Your task to perform on an android device: toggle notifications settings in the gmail app Image 0: 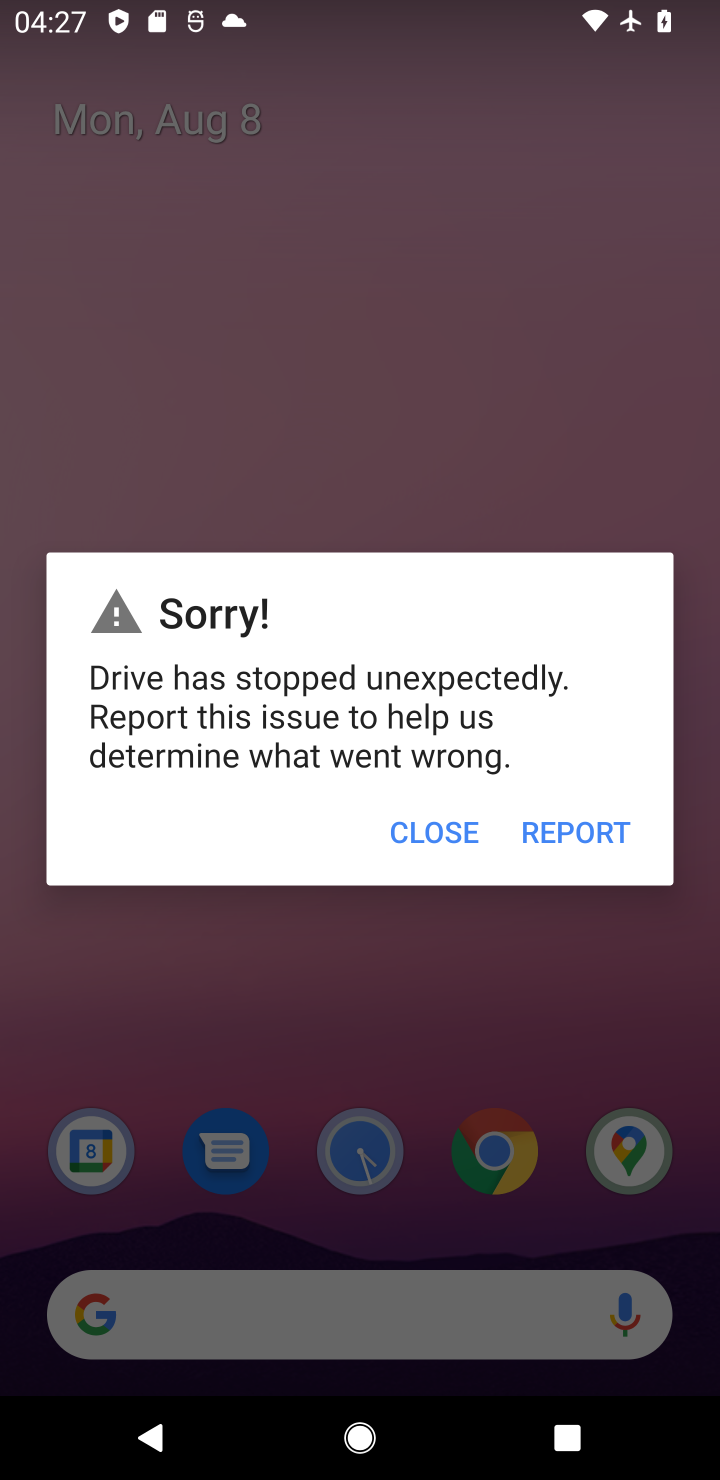
Step 0: click (451, 835)
Your task to perform on an android device: toggle notifications settings in the gmail app Image 1: 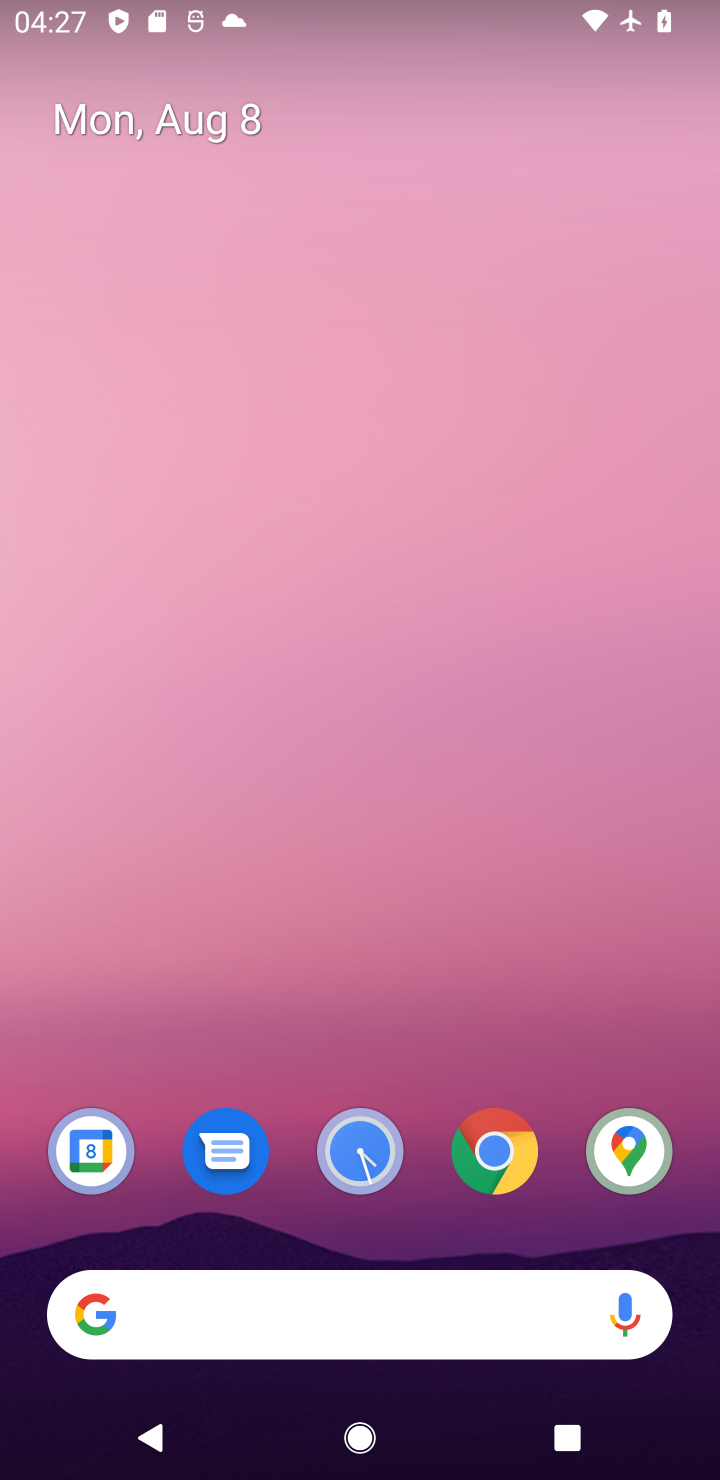
Step 1: drag from (333, 1019) to (250, 241)
Your task to perform on an android device: toggle notifications settings in the gmail app Image 2: 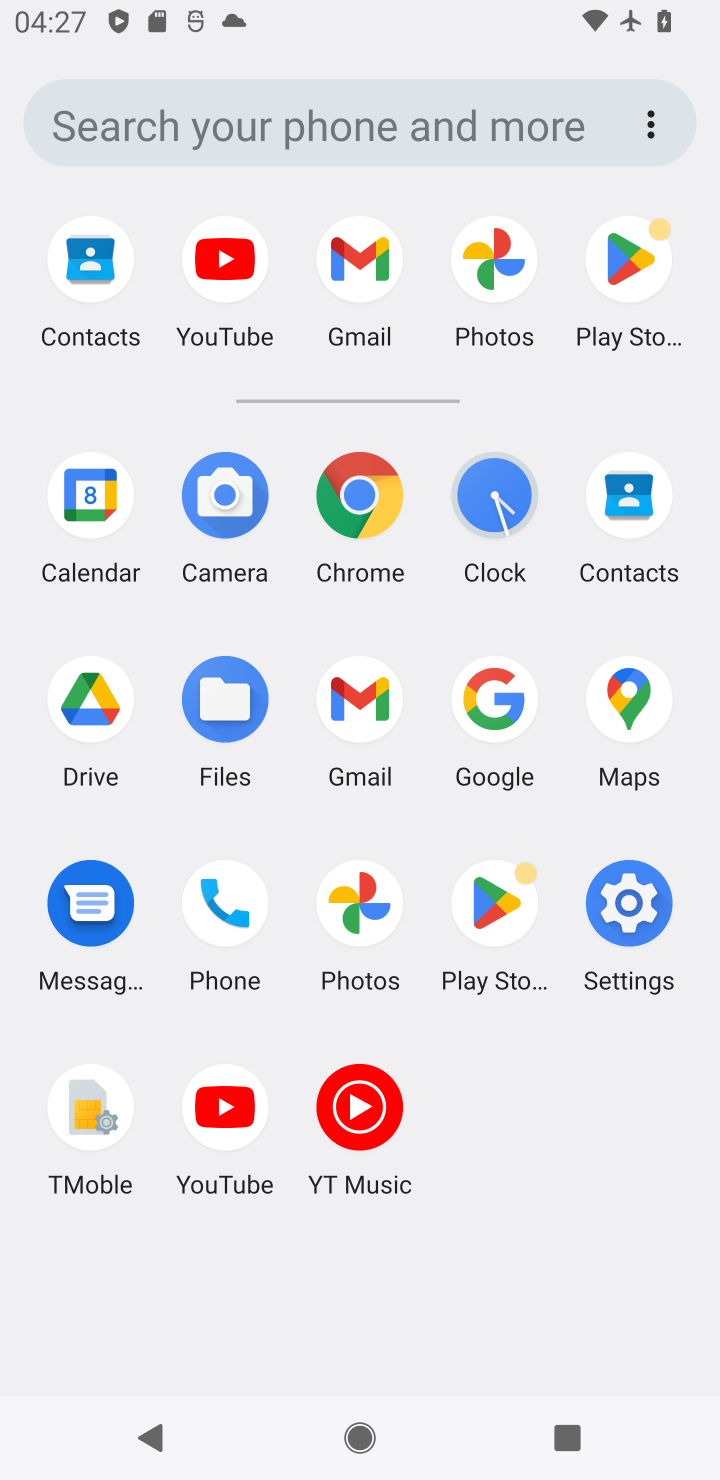
Step 2: click (379, 683)
Your task to perform on an android device: toggle notifications settings in the gmail app Image 3: 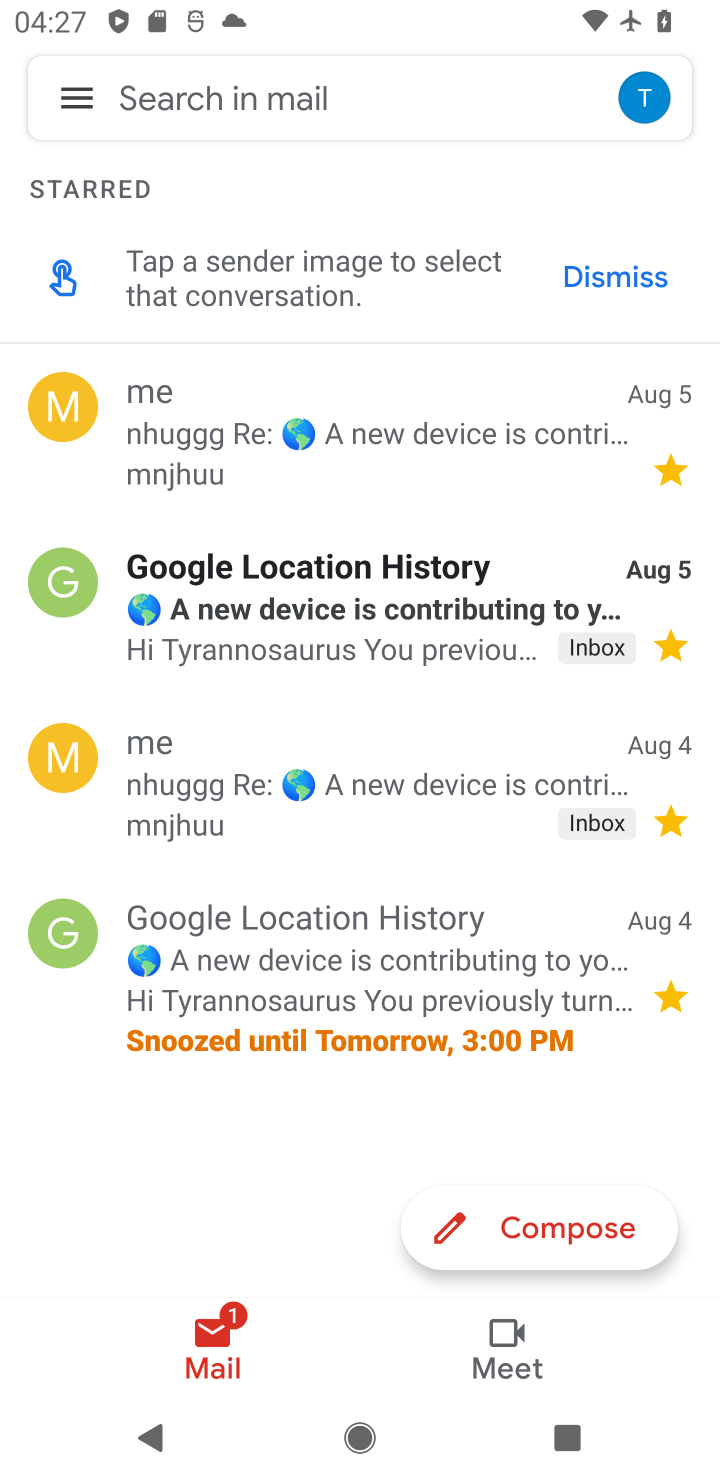
Step 3: click (86, 82)
Your task to perform on an android device: toggle notifications settings in the gmail app Image 4: 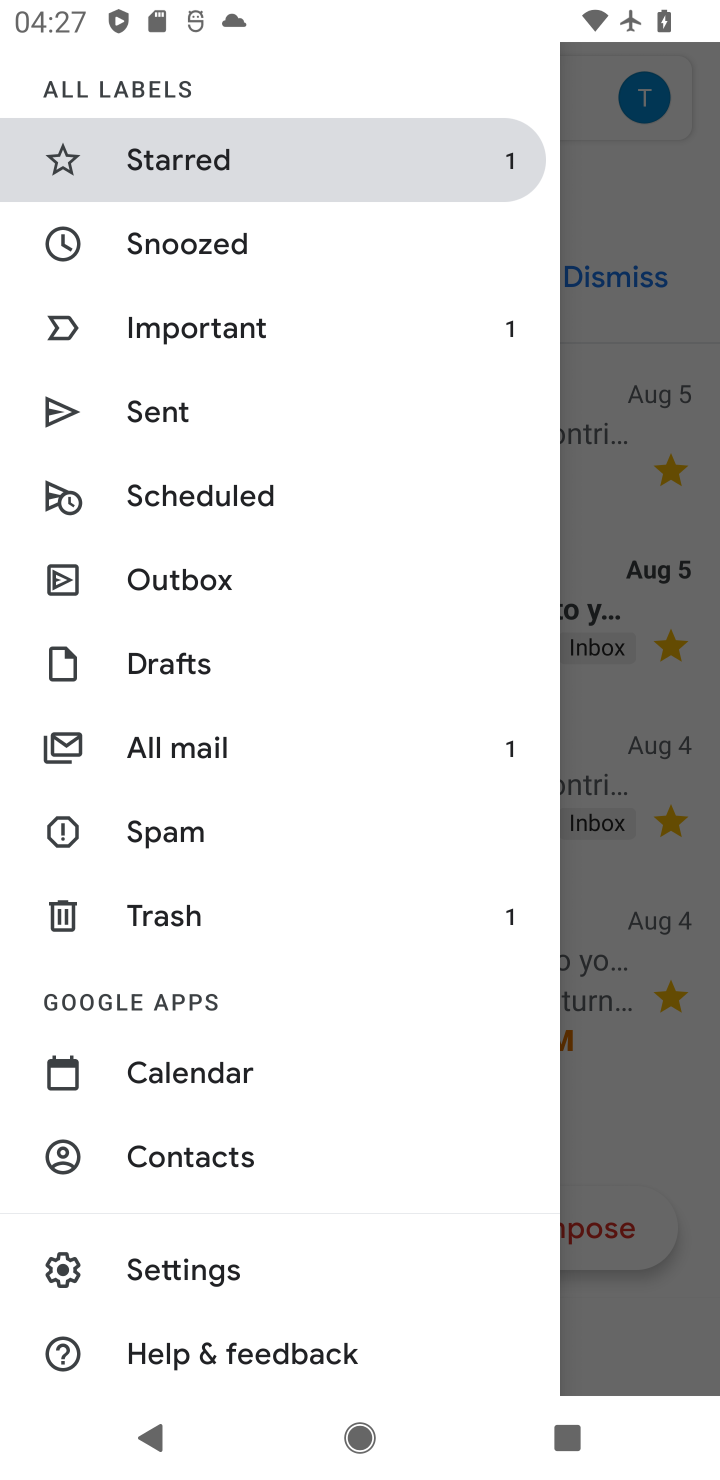
Step 4: click (215, 1269)
Your task to perform on an android device: toggle notifications settings in the gmail app Image 5: 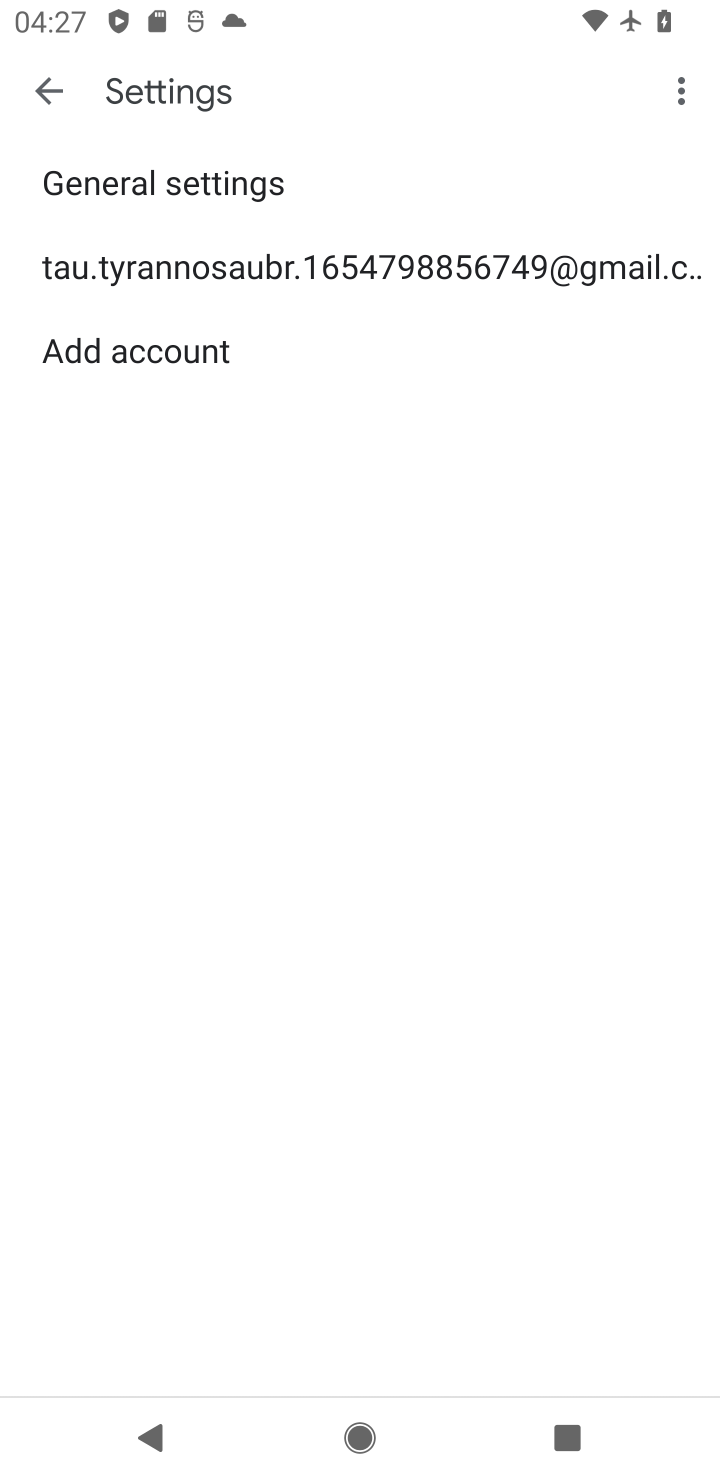
Step 5: click (109, 286)
Your task to perform on an android device: toggle notifications settings in the gmail app Image 6: 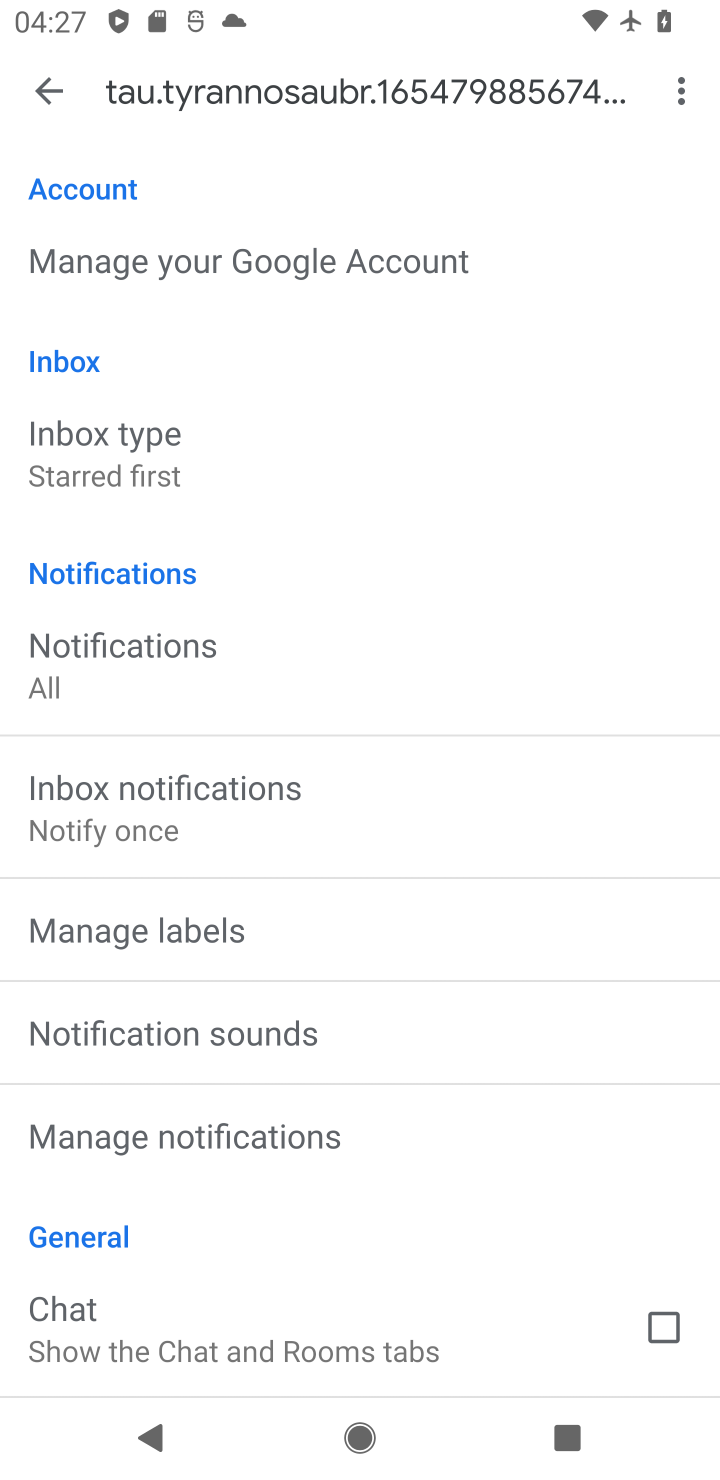
Step 6: click (283, 1110)
Your task to perform on an android device: toggle notifications settings in the gmail app Image 7: 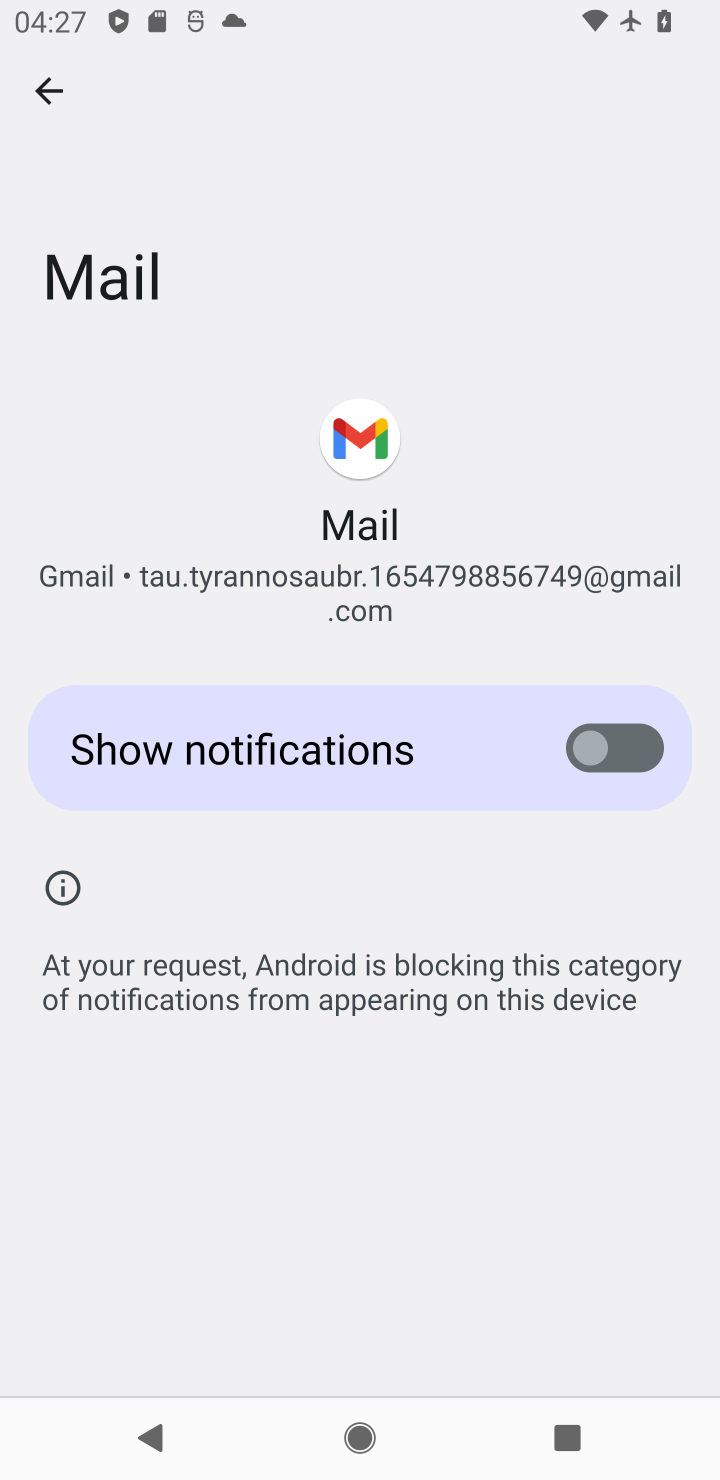
Step 7: click (624, 733)
Your task to perform on an android device: toggle notifications settings in the gmail app Image 8: 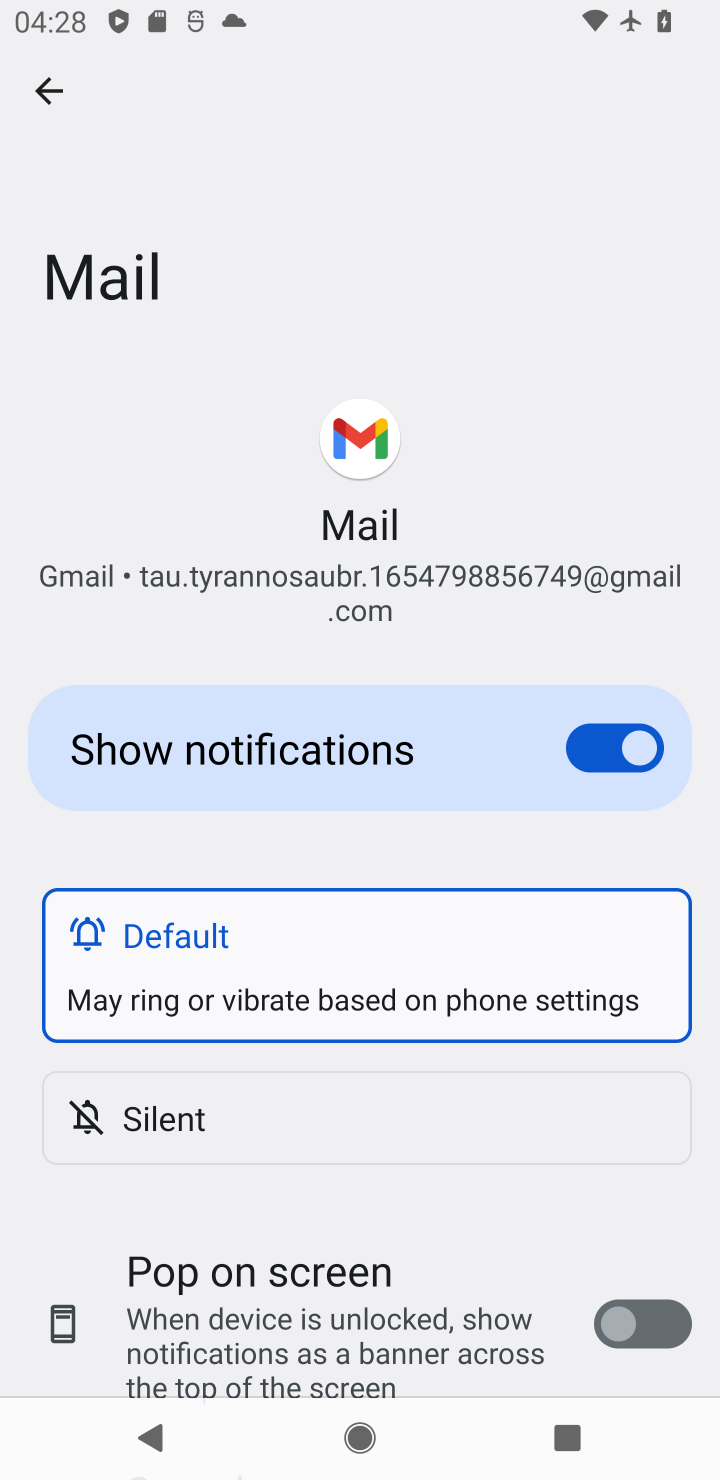
Step 8: task complete